Your task to perform on an android device: Open Reddit.com Image 0: 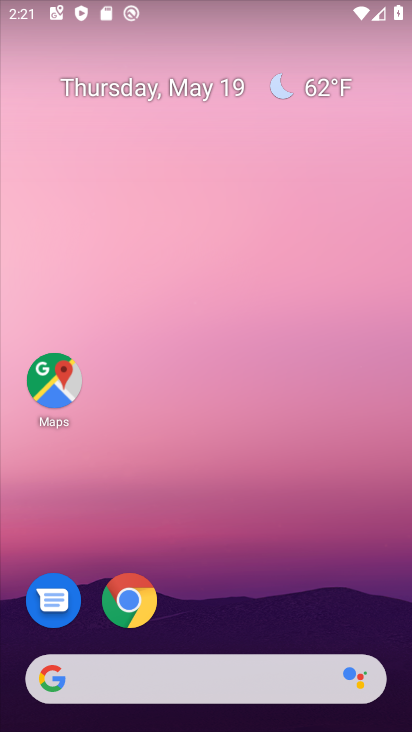
Step 0: click (113, 602)
Your task to perform on an android device: Open Reddit.com Image 1: 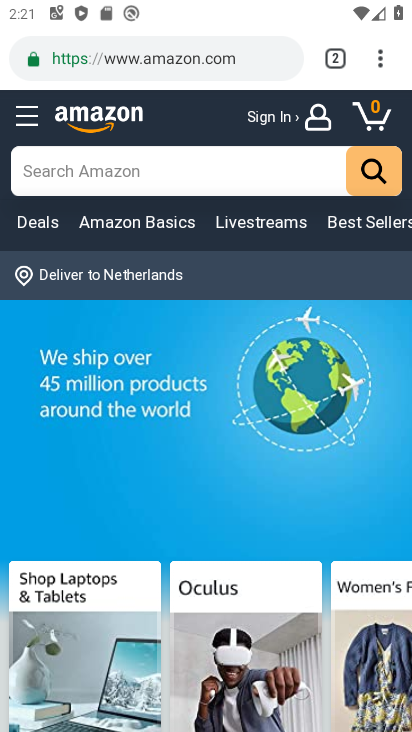
Step 1: click (203, 63)
Your task to perform on an android device: Open Reddit.com Image 2: 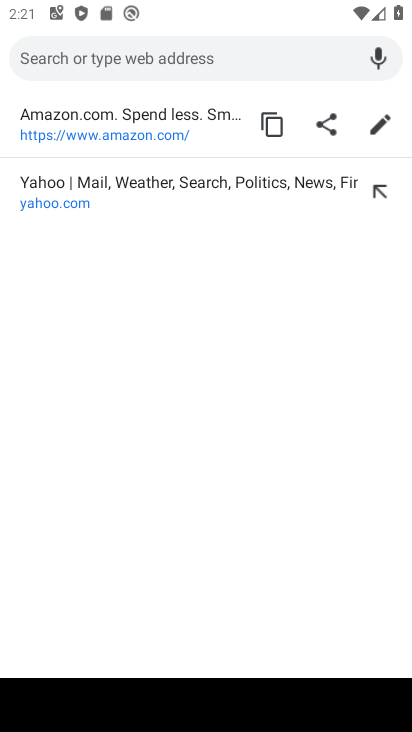
Step 2: type "Reddit.com"
Your task to perform on an android device: Open Reddit.com Image 3: 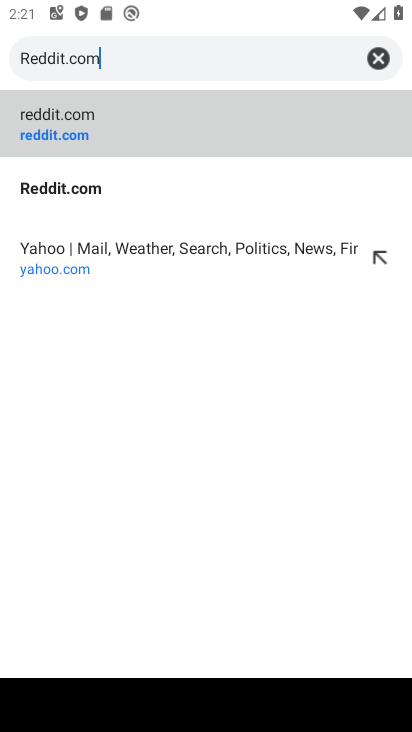
Step 3: type ""
Your task to perform on an android device: Open Reddit.com Image 4: 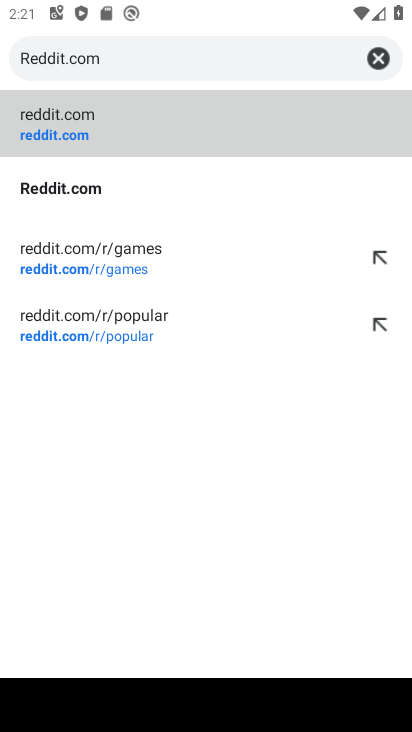
Step 4: click (46, 192)
Your task to perform on an android device: Open Reddit.com Image 5: 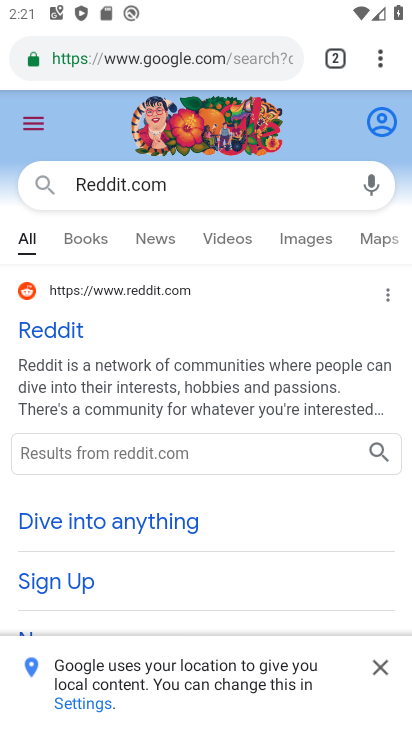
Step 5: click (36, 326)
Your task to perform on an android device: Open Reddit.com Image 6: 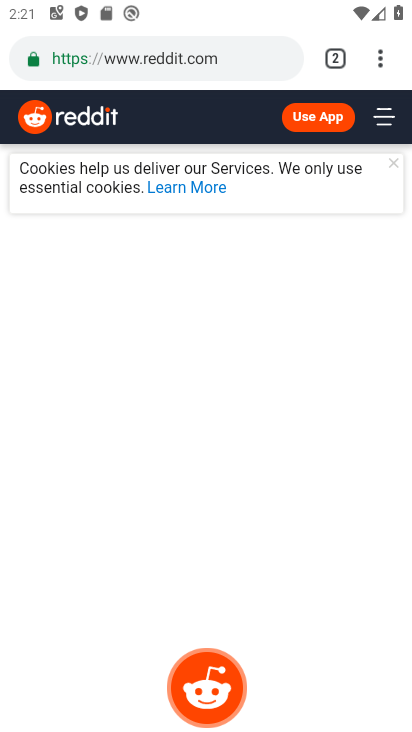
Step 6: task complete